Your task to perform on an android device: open a bookmark in the chrome app Image 0: 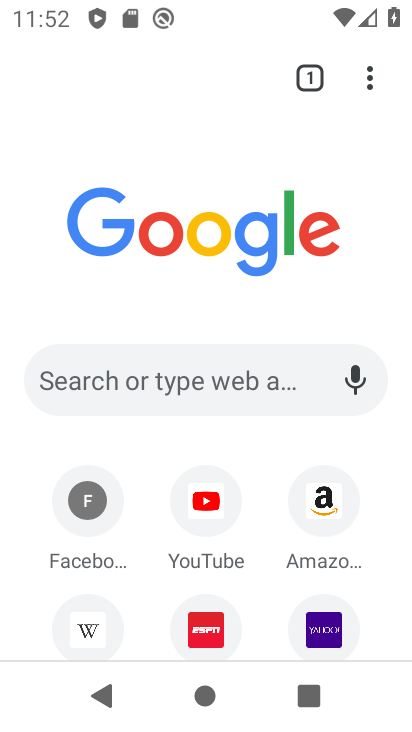
Step 0: press home button
Your task to perform on an android device: open a bookmark in the chrome app Image 1: 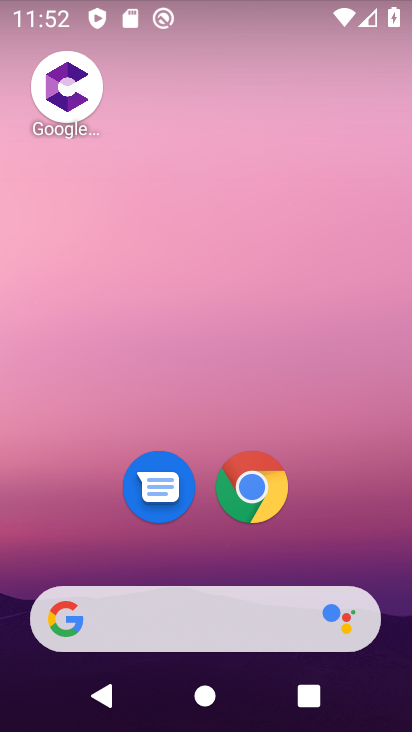
Step 1: drag from (206, 571) to (256, 1)
Your task to perform on an android device: open a bookmark in the chrome app Image 2: 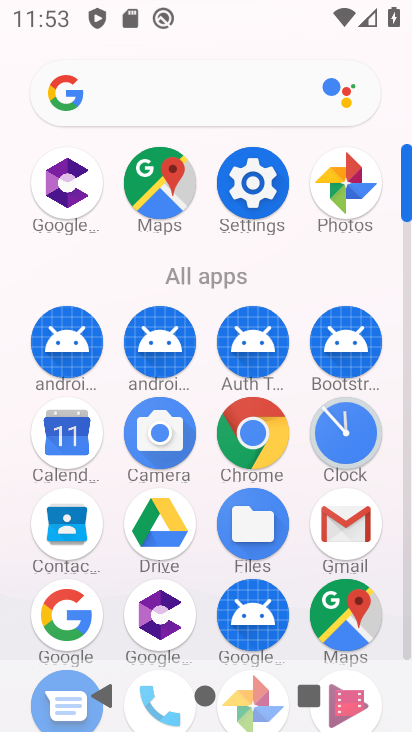
Step 2: click (240, 449)
Your task to perform on an android device: open a bookmark in the chrome app Image 3: 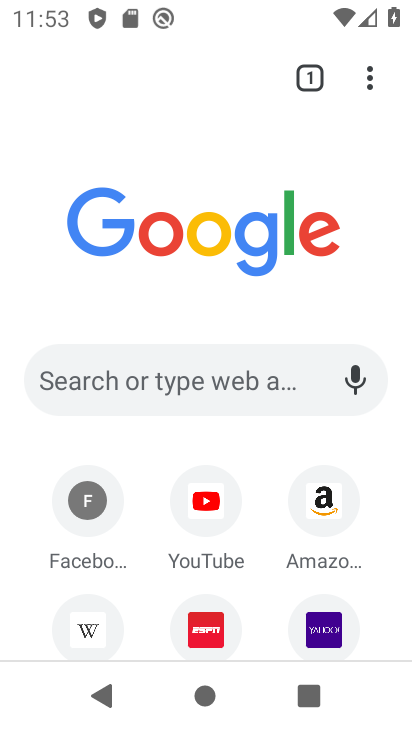
Step 3: click (366, 80)
Your task to perform on an android device: open a bookmark in the chrome app Image 4: 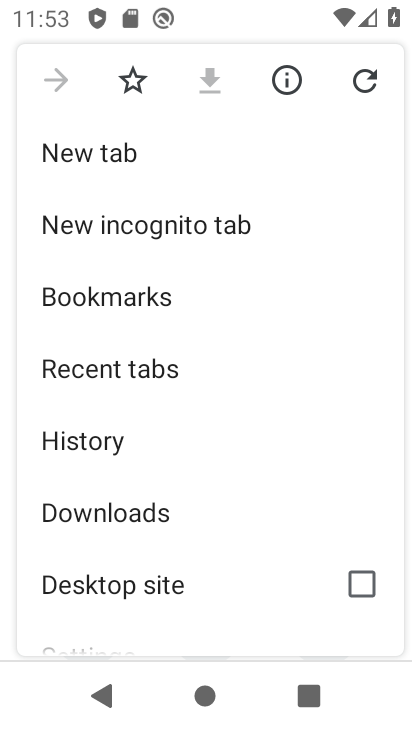
Step 4: click (166, 306)
Your task to perform on an android device: open a bookmark in the chrome app Image 5: 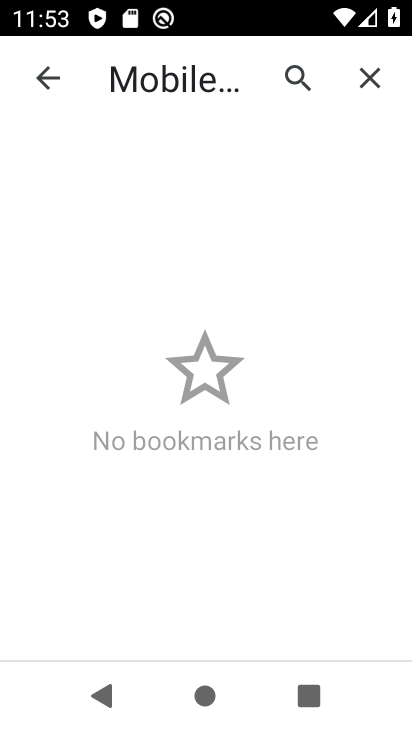
Step 5: task complete